Your task to perform on an android device: turn off notifications settings in the gmail app Image 0: 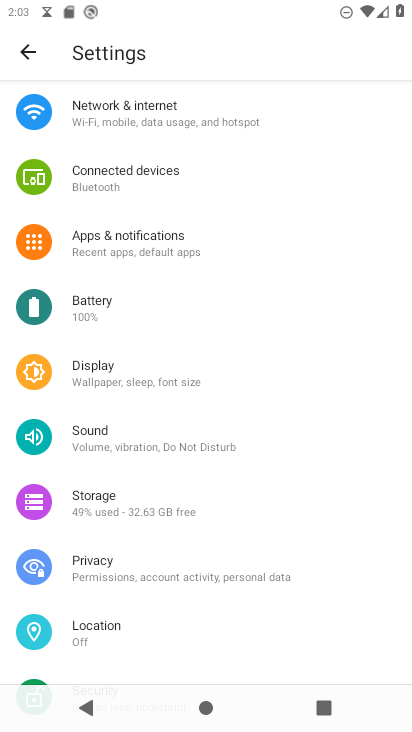
Step 0: press home button
Your task to perform on an android device: turn off notifications settings in the gmail app Image 1: 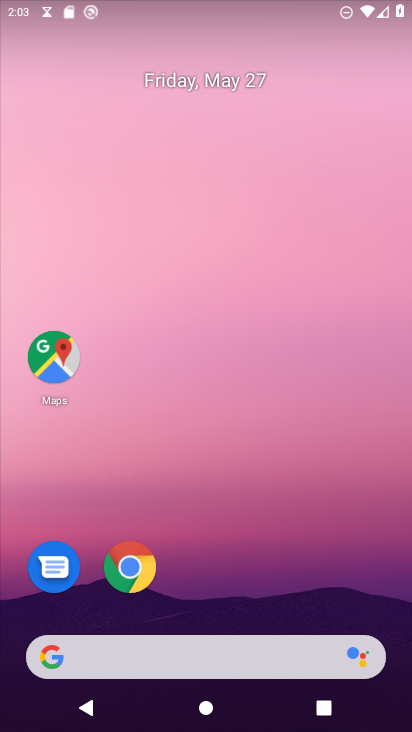
Step 1: drag from (228, 607) to (154, 146)
Your task to perform on an android device: turn off notifications settings in the gmail app Image 2: 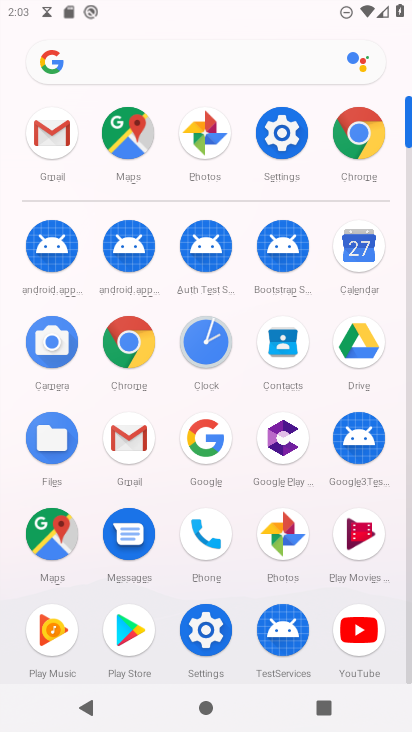
Step 2: click (53, 141)
Your task to perform on an android device: turn off notifications settings in the gmail app Image 3: 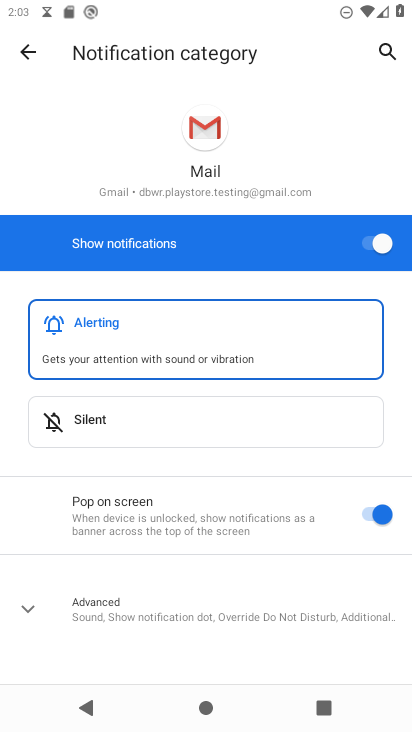
Step 3: click (378, 522)
Your task to perform on an android device: turn off notifications settings in the gmail app Image 4: 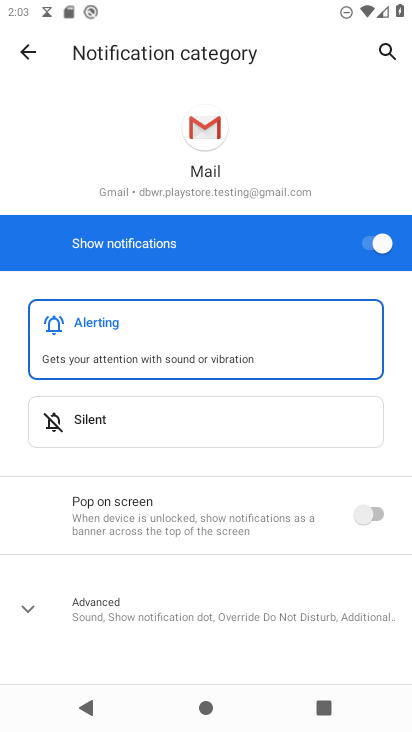
Step 4: task complete